Your task to perform on an android device: Open settings on Google Maps Image 0: 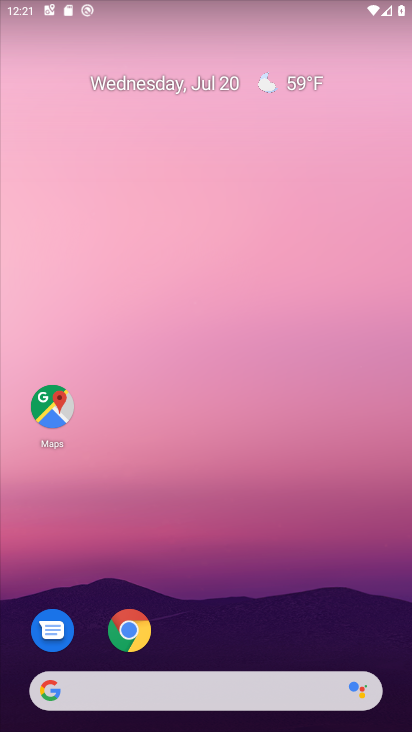
Step 0: click (48, 408)
Your task to perform on an android device: Open settings on Google Maps Image 1: 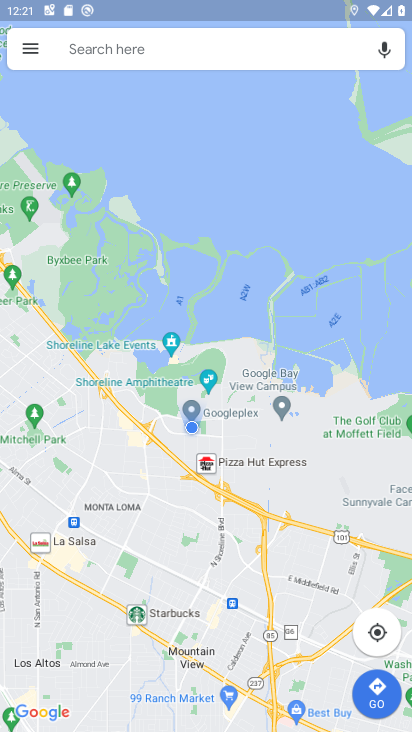
Step 1: click (28, 52)
Your task to perform on an android device: Open settings on Google Maps Image 2: 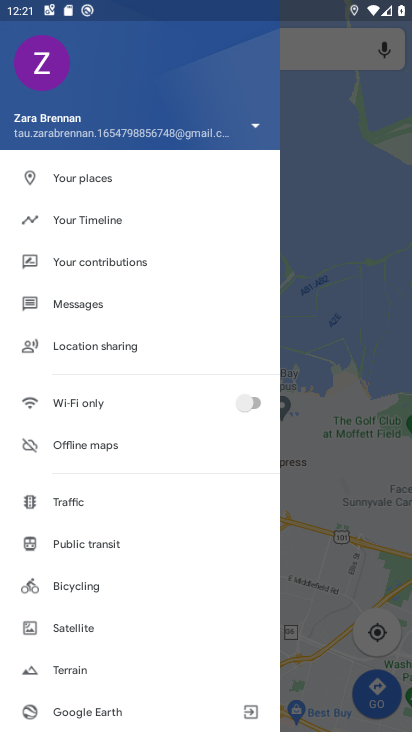
Step 2: drag from (177, 662) to (204, 207)
Your task to perform on an android device: Open settings on Google Maps Image 3: 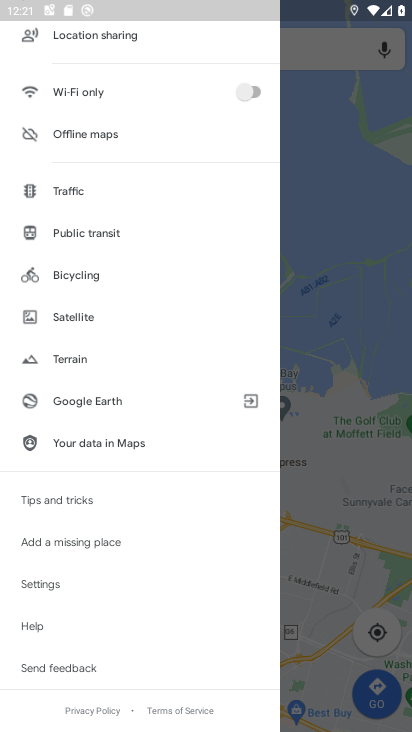
Step 3: click (42, 578)
Your task to perform on an android device: Open settings on Google Maps Image 4: 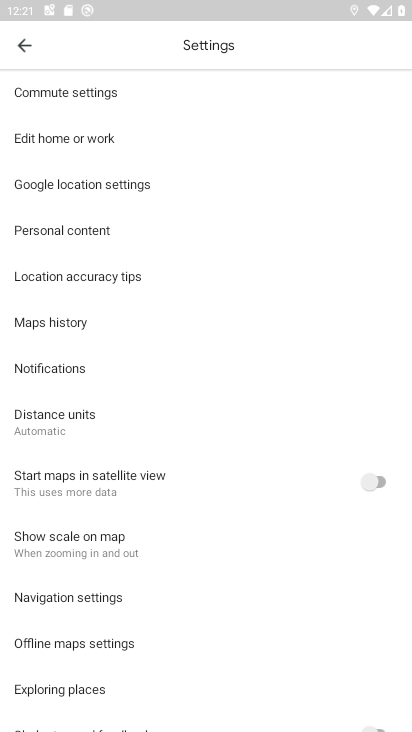
Step 4: task complete